Your task to perform on an android device: Check the news Image 0: 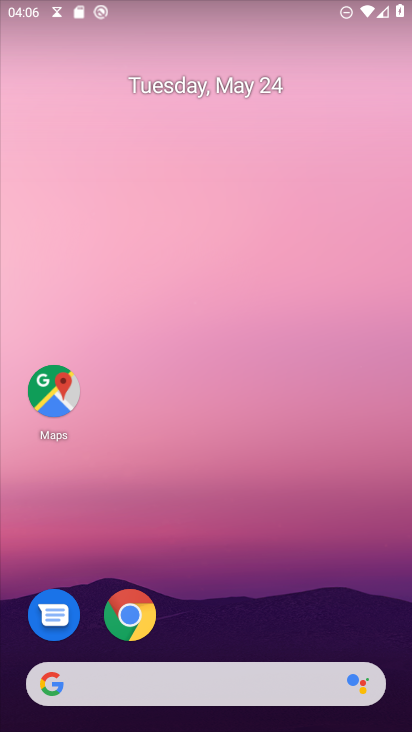
Step 0: drag from (282, 593) to (265, 2)
Your task to perform on an android device: Check the news Image 1: 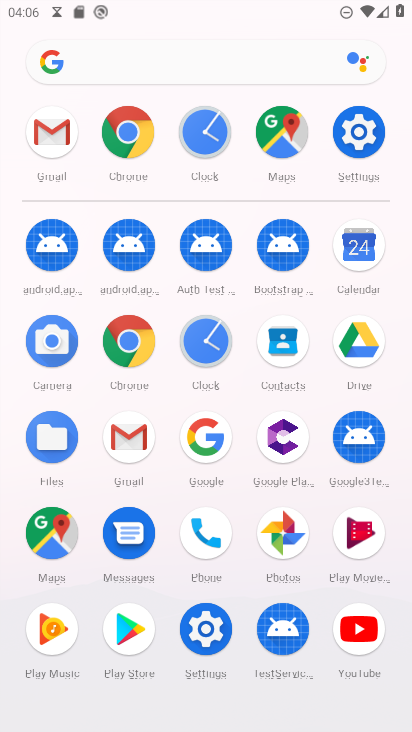
Step 1: click (127, 337)
Your task to perform on an android device: Check the news Image 2: 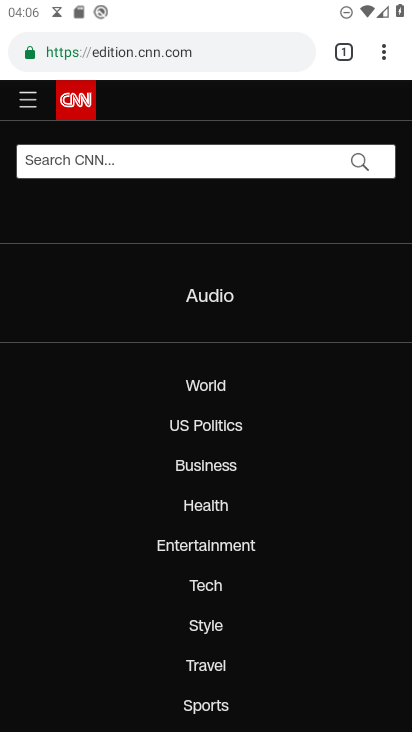
Step 2: click (153, 54)
Your task to perform on an android device: Check the news Image 3: 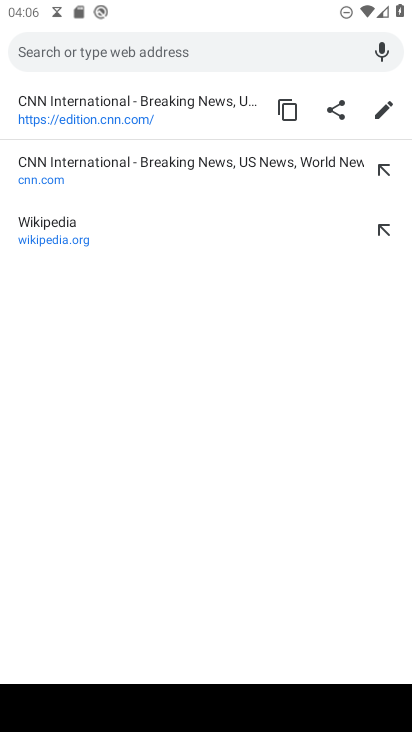
Step 3: type "Check the news"
Your task to perform on an android device: Check the news Image 4: 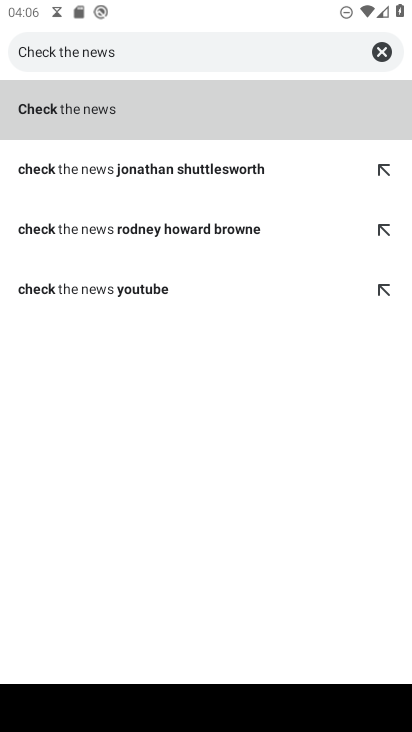
Step 4: click (154, 119)
Your task to perform on an android device: Check the news Image 5: 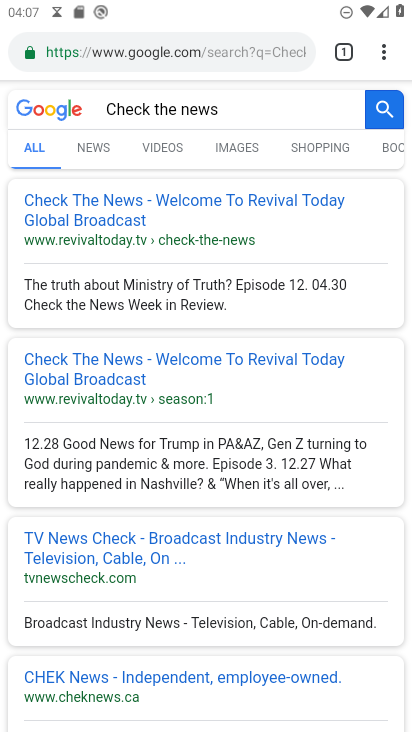
Step 5: click (95, 140)
Your task to perform on an android device: Check the news Image 6: 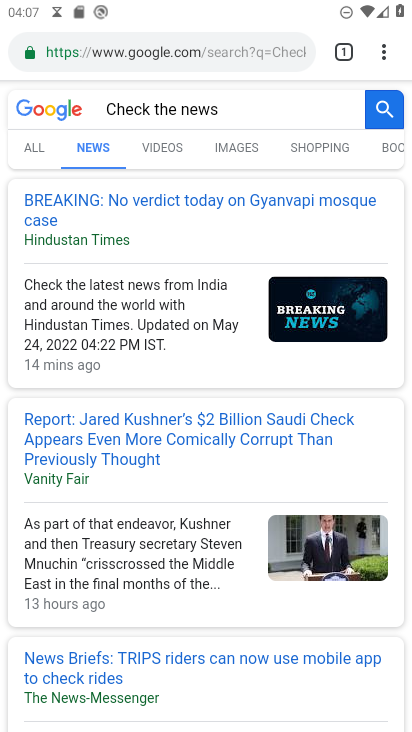
Step 6: task complete